Your task to perform on an android device: add a label to a message in the gmail app Image 0: 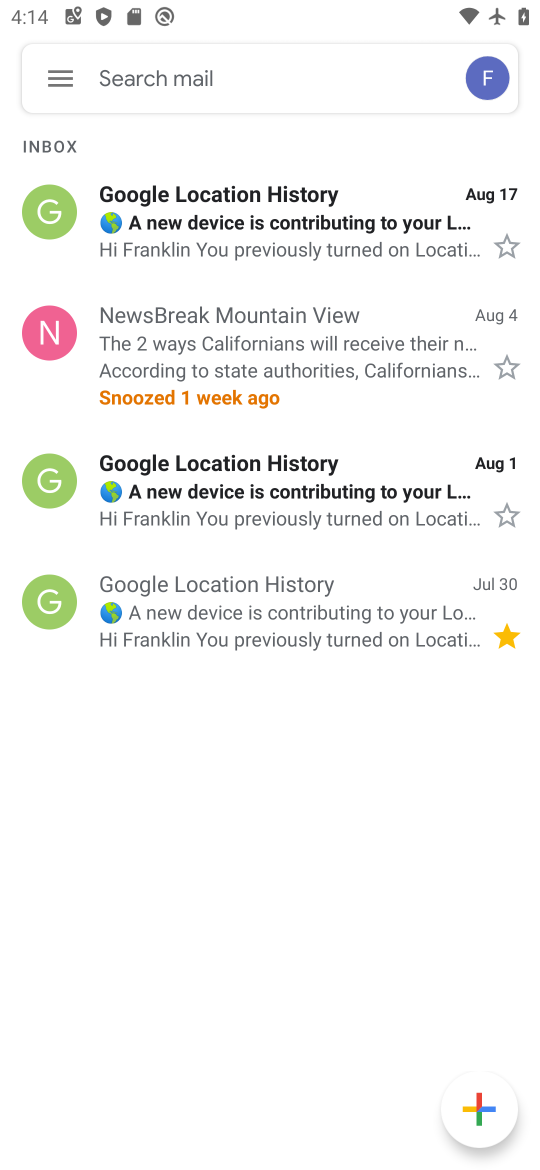
Step 0: press home button
Your task to perform on an android device: add a label to a message in the gmail app Image 1: 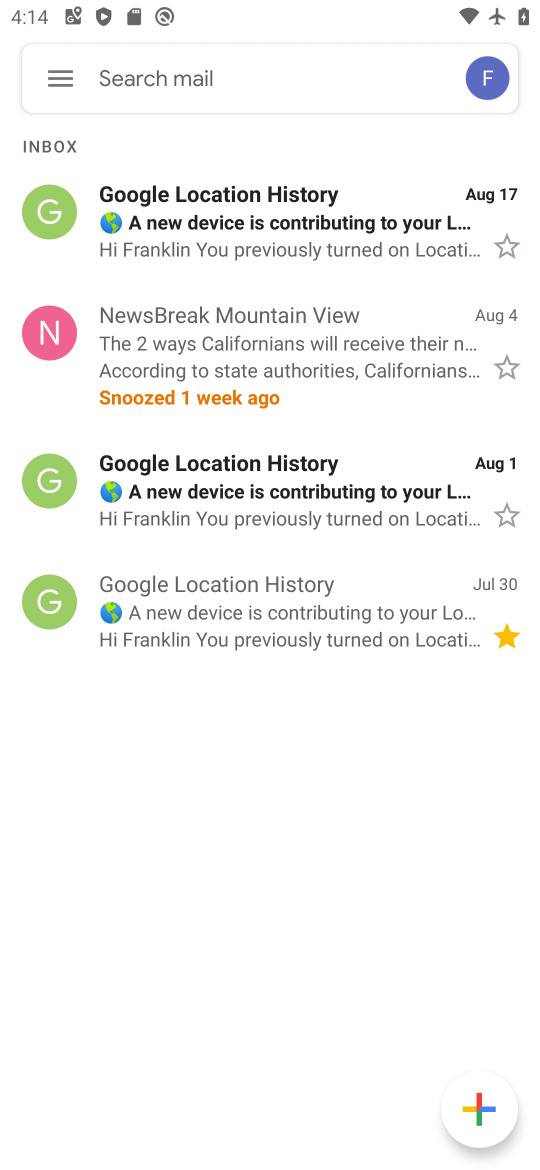
Step 1: press home button
Your task to perform on an android device: add a label to a message in the gmail app Image 2: 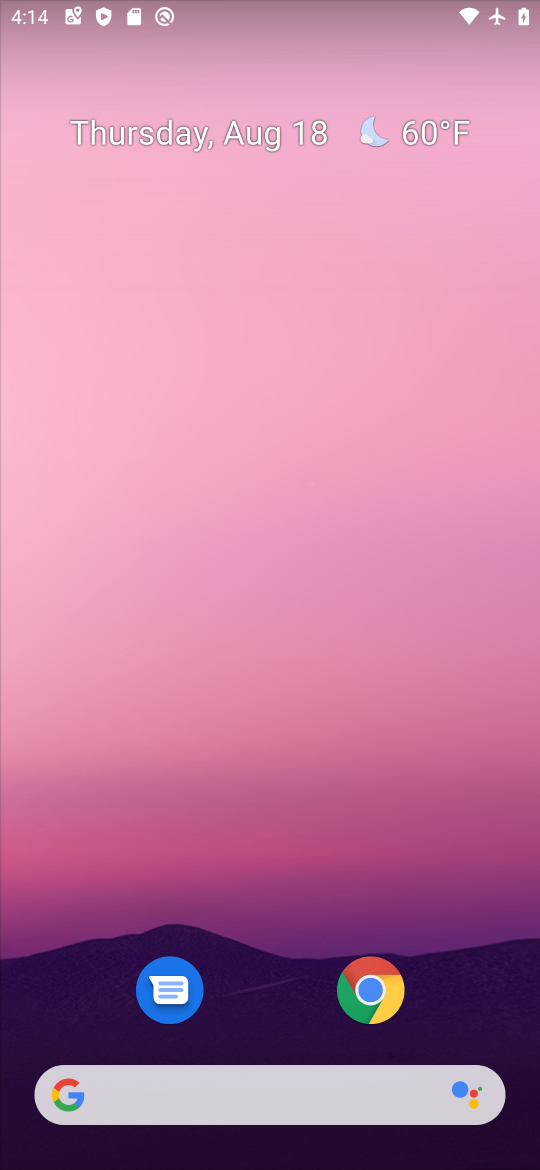
Step 2: drag from (263, 861) to (287, 128)
Your task to perform on an android device: add a label to a message in the gmail app Image 3: 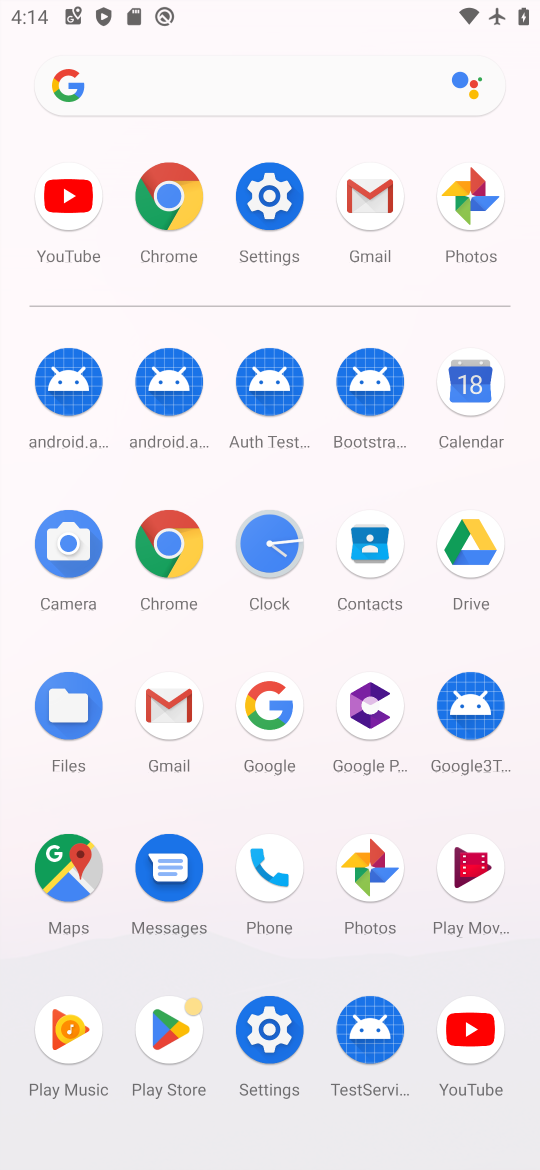
Step 3: click (167, 714)
Your task to perform on an android device: add a label to a message in the gmail app Image 4: 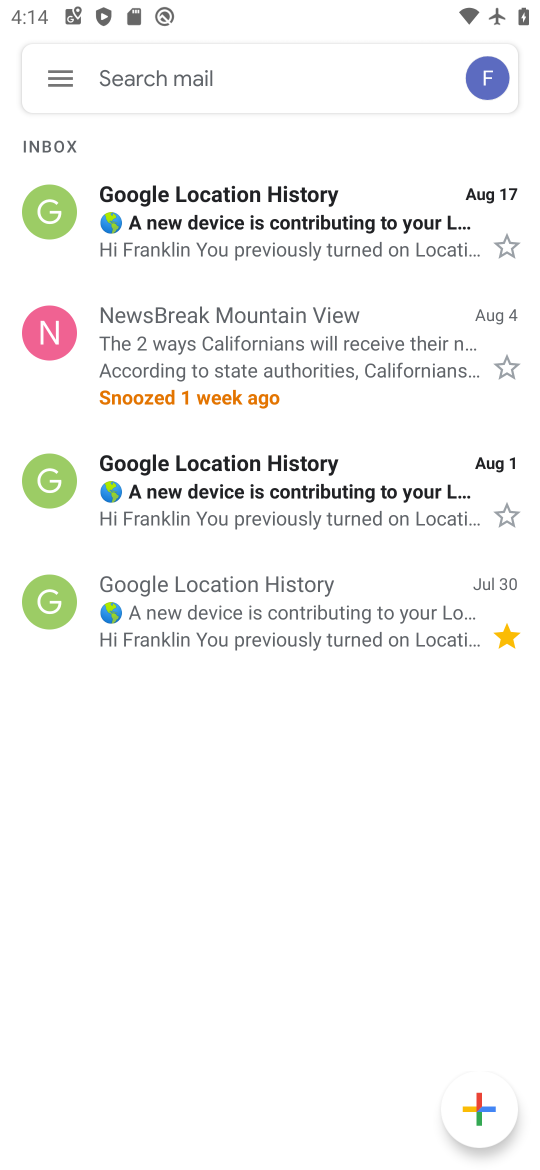
Step 4: click (276, 607)
Your task to perform on an android device: add a label to a message in the gmail app Image 5: 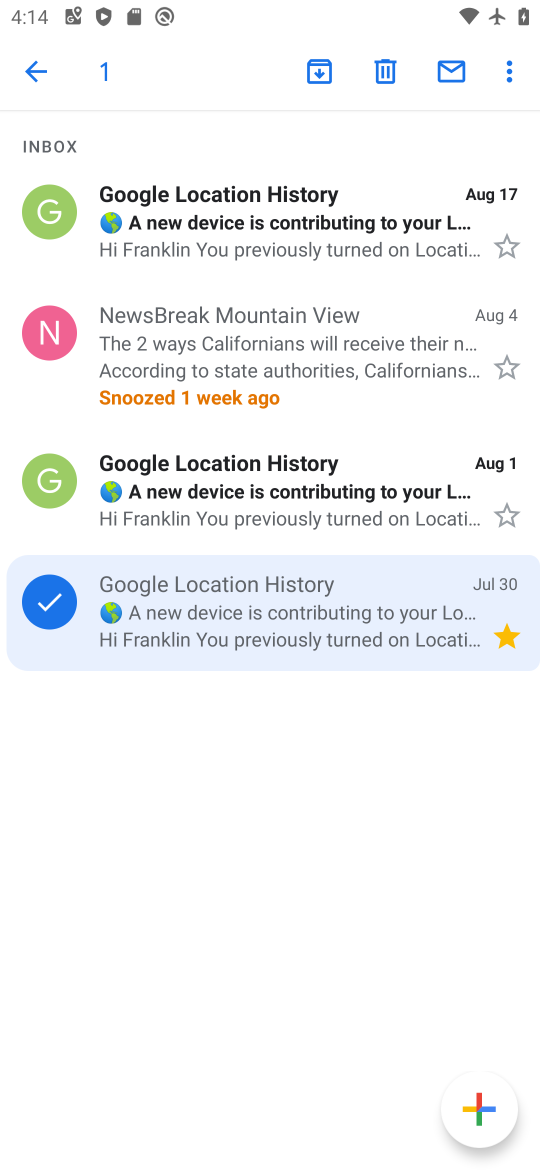
Step 5: click (517, 58)
Your task to perform on an android device: add a label to a message in the gmail app Image 6: 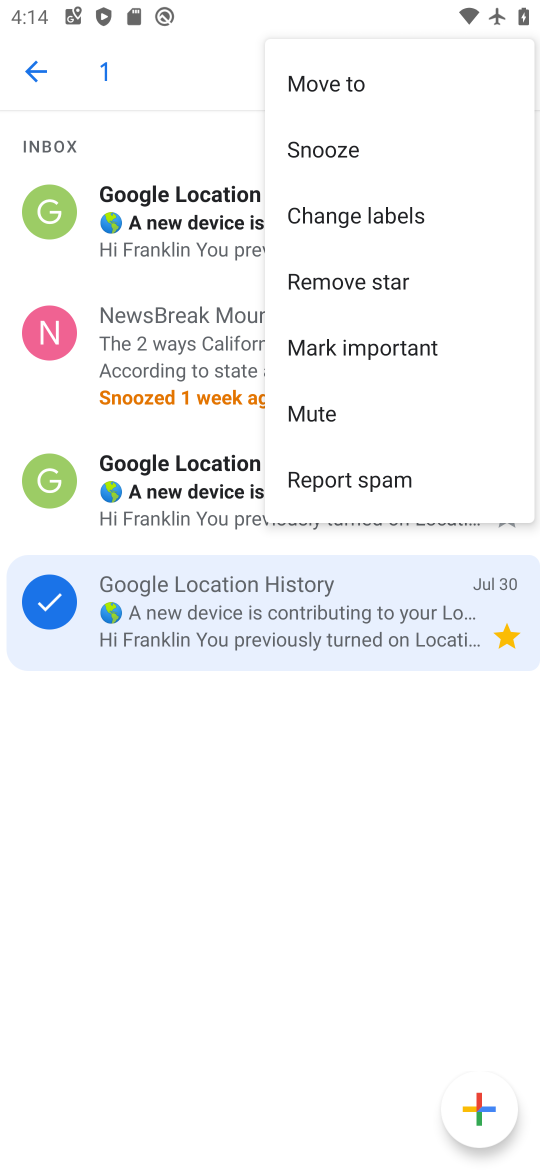
Step 6: task complete